Your task to perform on an android device: Go to Maps Image 0: 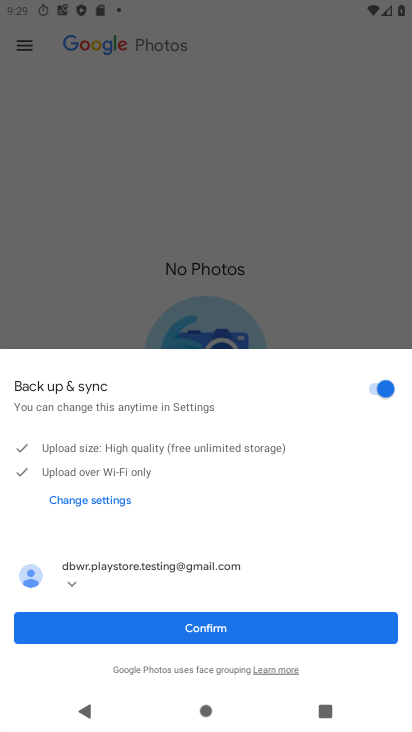
Step 0: press home button
Your task to perform on an android device: Go to Maps Image 1: 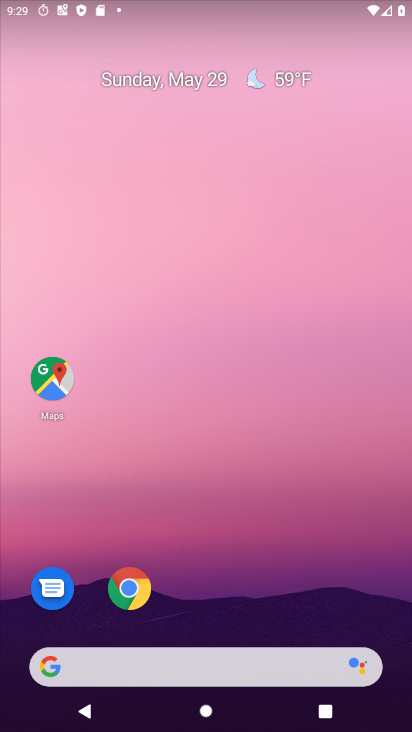
Step 1: click (44, 365)
Your task to perform on an android device: Go to Maps Image 2: 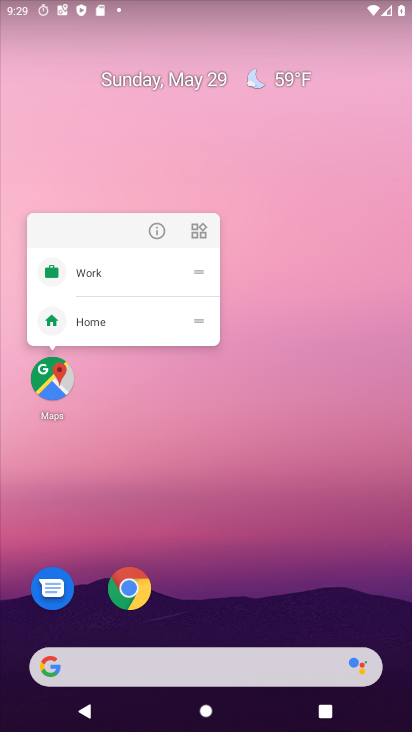
Step 2: click (56, 387)
Your task to perform on an android device: Go to Maps Image 3: 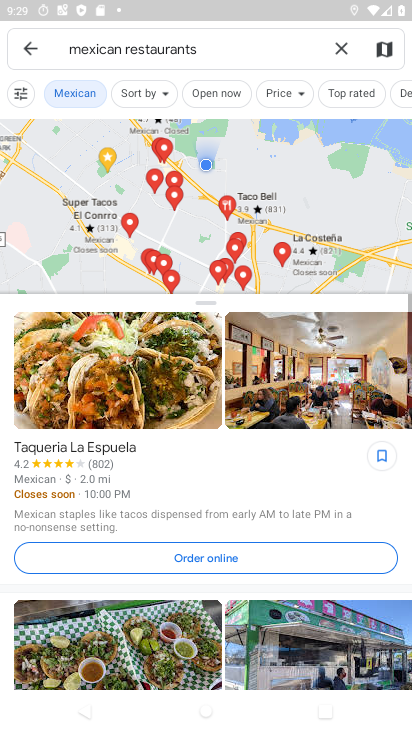
Step 3: click (31, 45)
Your task to perform on an android device: Go to Maps Image 4: 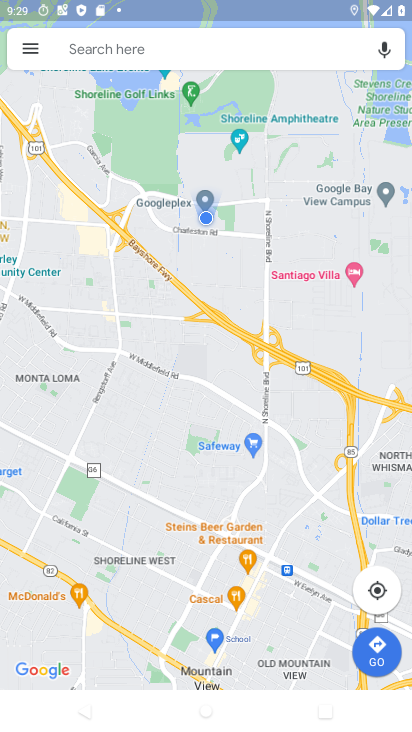
Step 4: task complete